Your task to perform on an android device: change alarm snooze length Image 0: 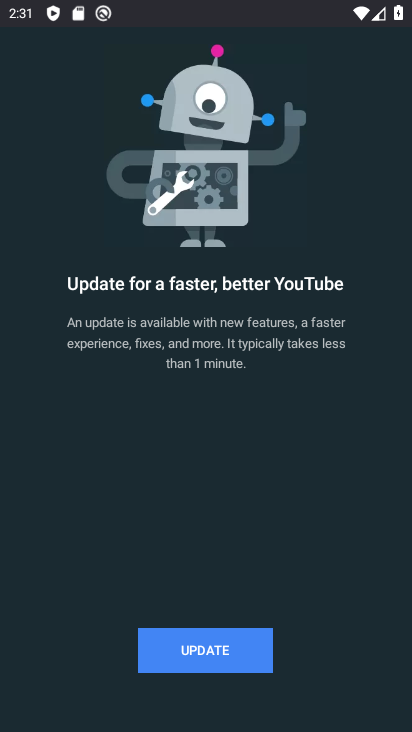
Step 0: press back button
Your task to perform on an android device: change alarm snooze length Image 1: 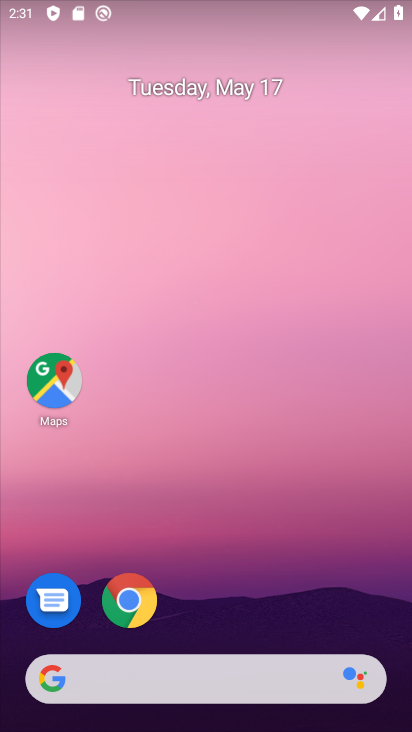
Step 1: drag from (231, 647) to (313, 156)
Your task to perform on an android device: change alarm snooze length Image 2: 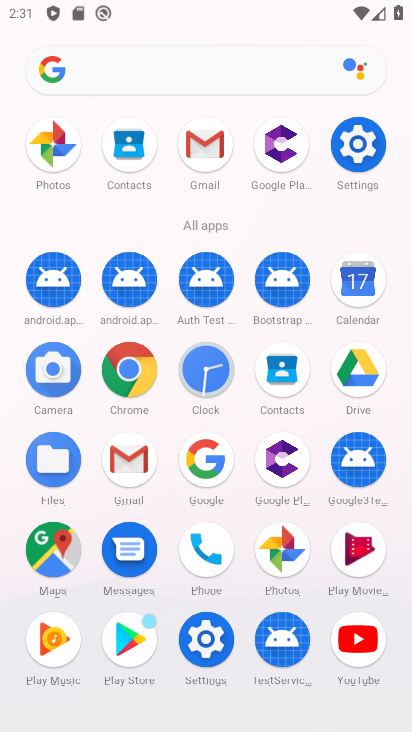
Step 2: click (207, 371)
Your task to perform on an android device: change alarm snooze length Image 3: 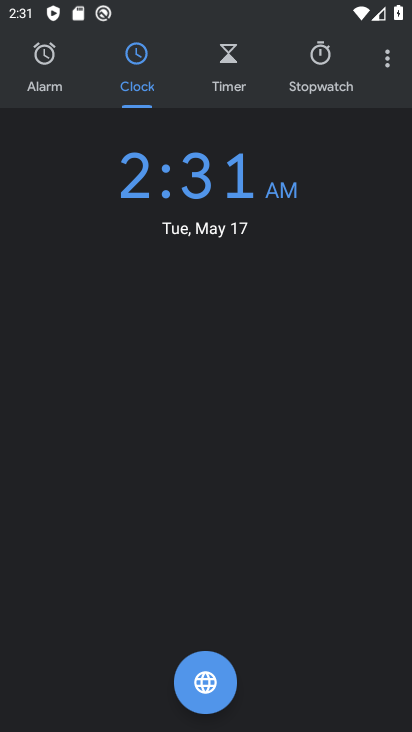
Step 3: click (388, 60)
Your task to perform on an android device: change alarm snooze length Image 4: 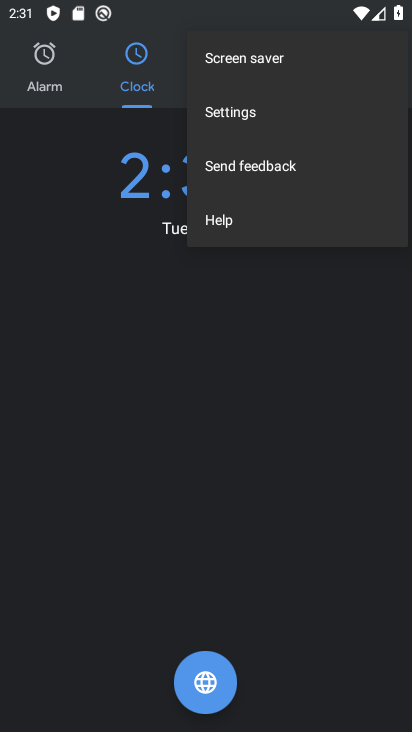
Step 4: click (364, 114)
Your task to perform on an android device: change alarm snooze length Image 5: 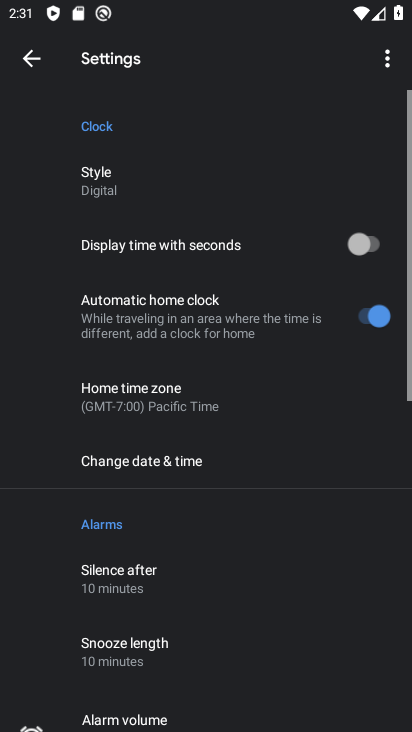
Step 5: drag from (213, 615) to (306, 259)
Your task to perform on an android device: change alarm snooze length Image 6: 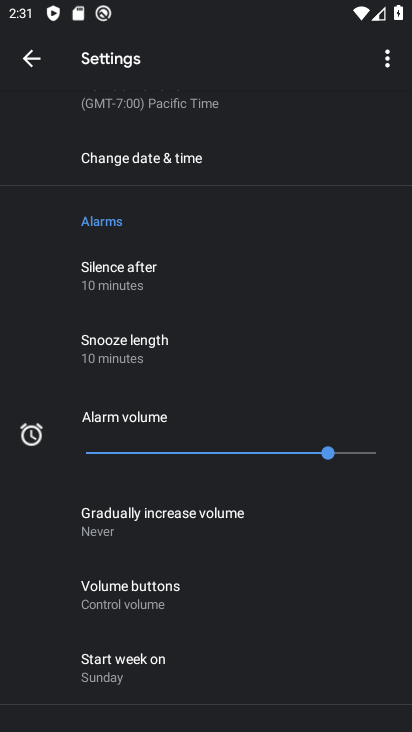
Step 6: click (234, 344)
Your task to perform on an android device: change alarm snooze length Image 7: 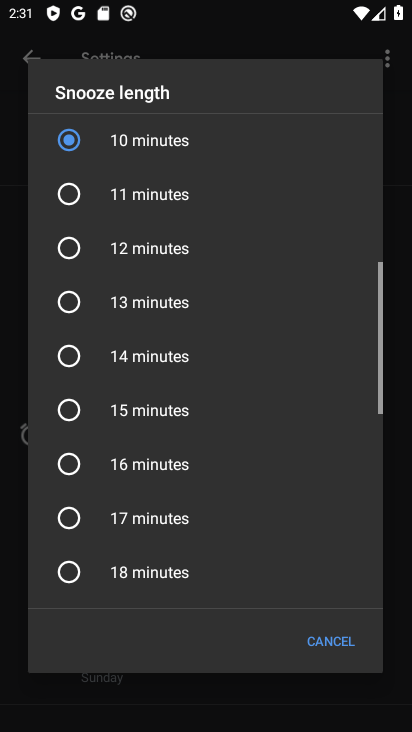
Step 7: click (188, 425)
Your task to perform on an android device: change alarm snooze length Image 8: 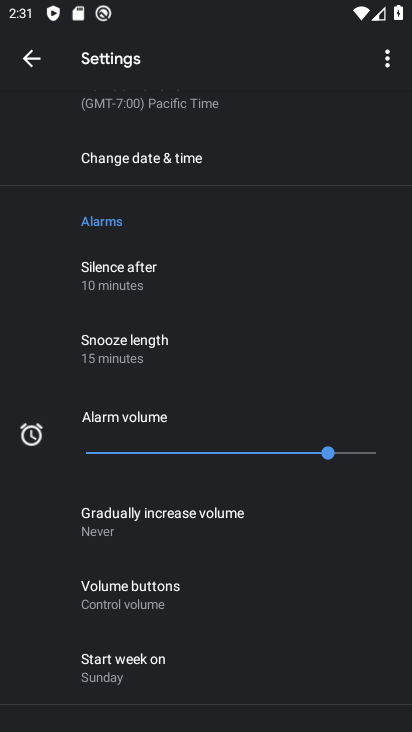
Step 8: task complete